Your task to perform on an android device: Open Youtube and go to "Your channel" Image 0: 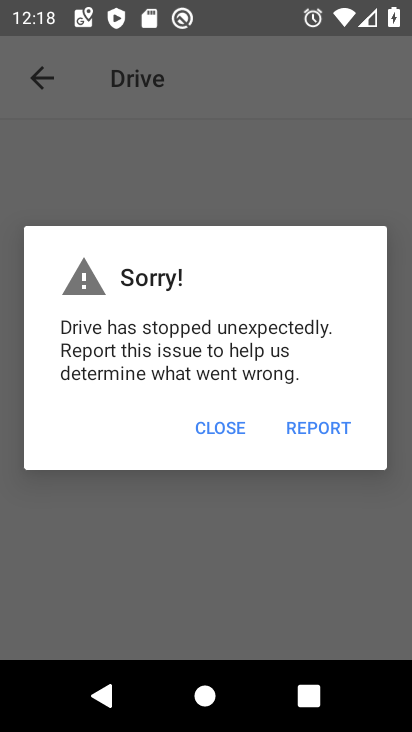
Step 0: press home button
Your task to perform on an android device: Open Youtube and go to "Your channel" Image 1: 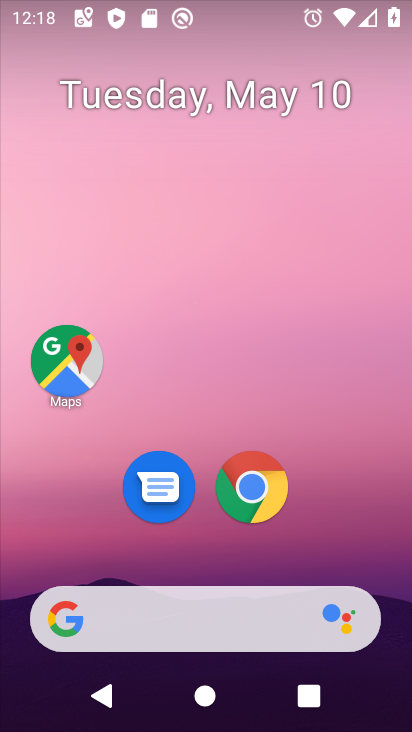
Step 1: drag from (329, 551) to (362, 97)
Your task to perform on an android device: Open Youtube and go to "Your channel" Image 2: 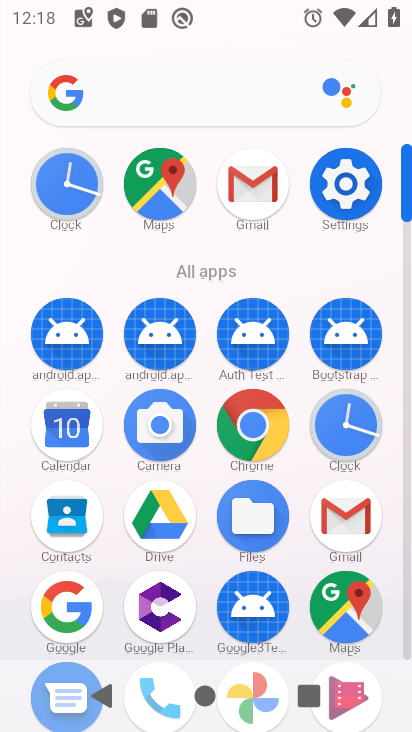
Step 2: click (408, 641)
Your task to perform on an android device: Open Youtube and go to "Your channel" Image 3: 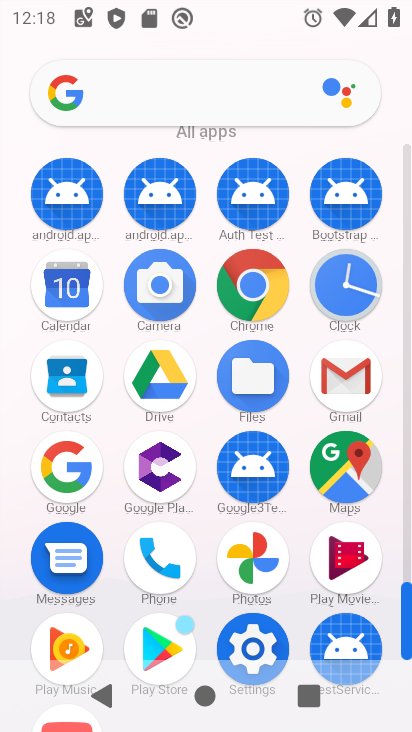
Step 3: drag from (406, 631) to (408, 717)
Your task to perform on an android device: Open Youtube and go to "Your channel" Image 4: 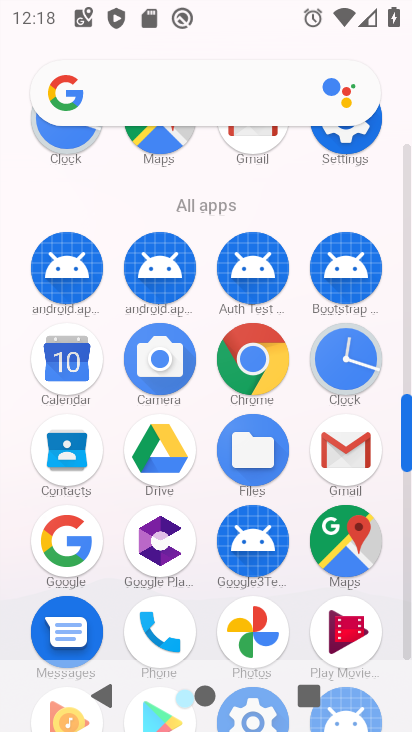
Step 4: click (404, 653)
Your task to perform on an android device: Open Youtube and go to "Your channel" Image 5: 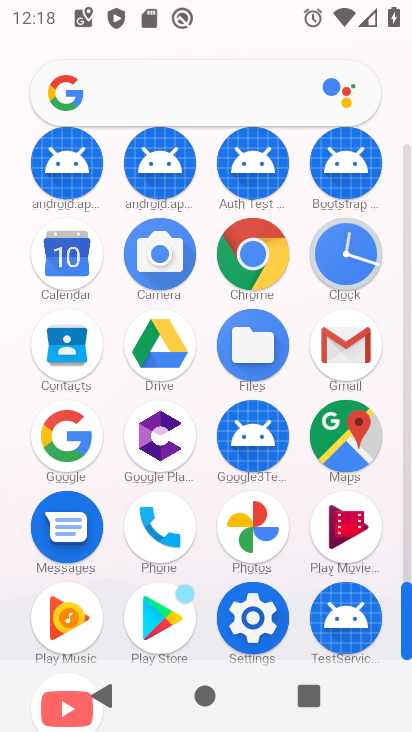
Step 5: click (48, 707)
Your task to perform on an android device: Open Youtube and go to "Your channel" Image 6: 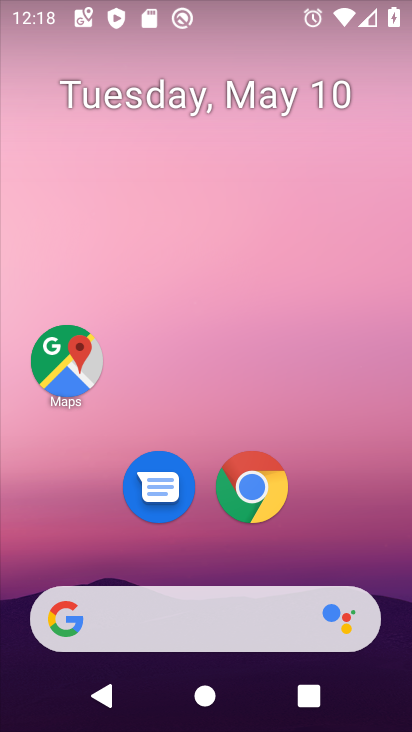
Step 6: task complete